Your task to perform on an android device: Go to eBay Image 0: 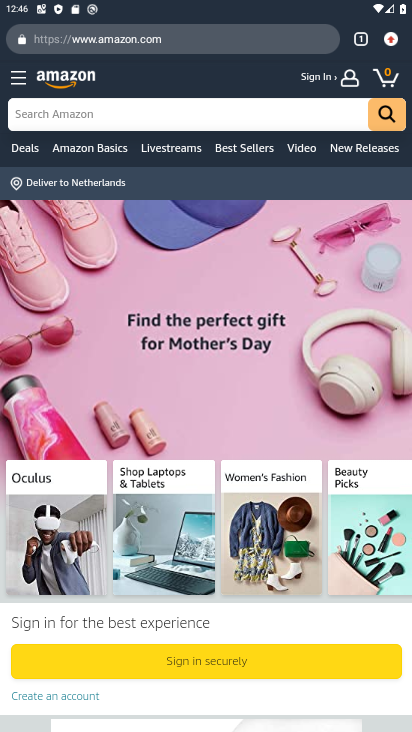
Step 0: press home button
Your task to perform on an android device: Go to eBay Image 1: 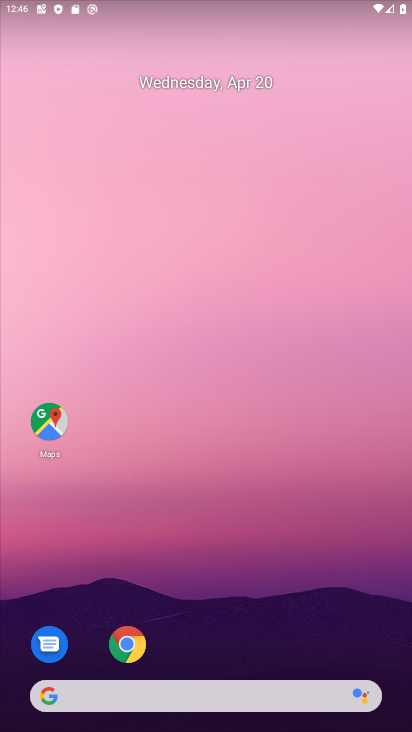
Step 1: click (190, 701)
Your task to perform on an android device: Go to eBay Image 2: 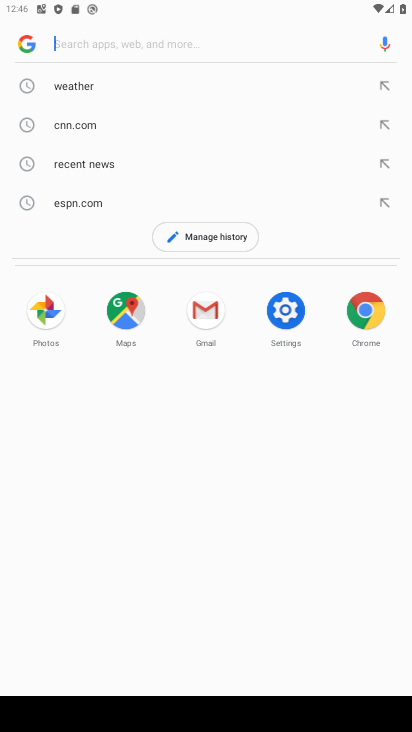
Step 2: type "eBay"
Your task to perform on an android device: Go to eBay Image 3: 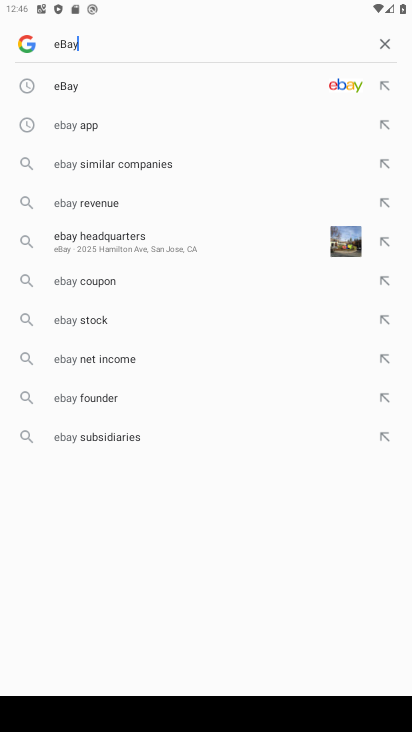
Step 3: click (125, 82)
Your task to perform on an android device: Go to eBay Image 4: 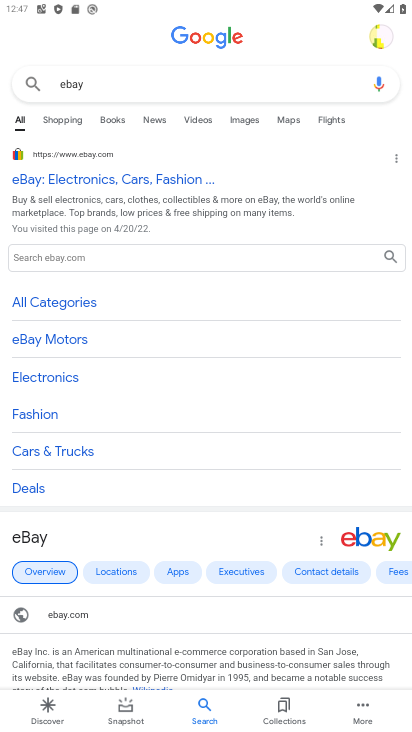
Step 4: task complete